Your task to perform on an android device: open app "DuckDuckGo Privacy Browser" Image 0: 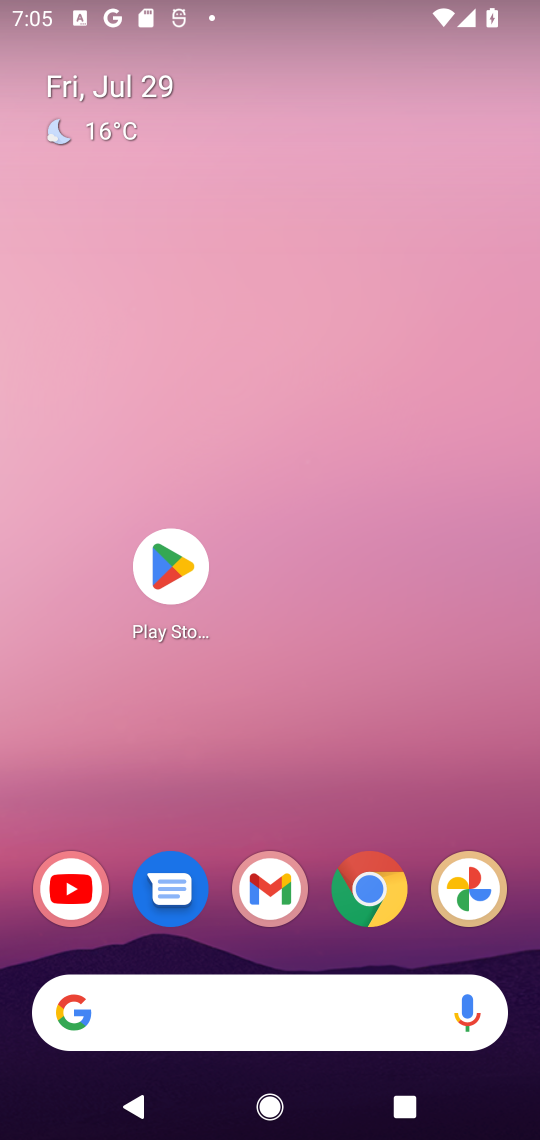
Step 0: press home button
Your task to perform on an android device: open app "DuckDuckGo Privacy Browser" Image 1: 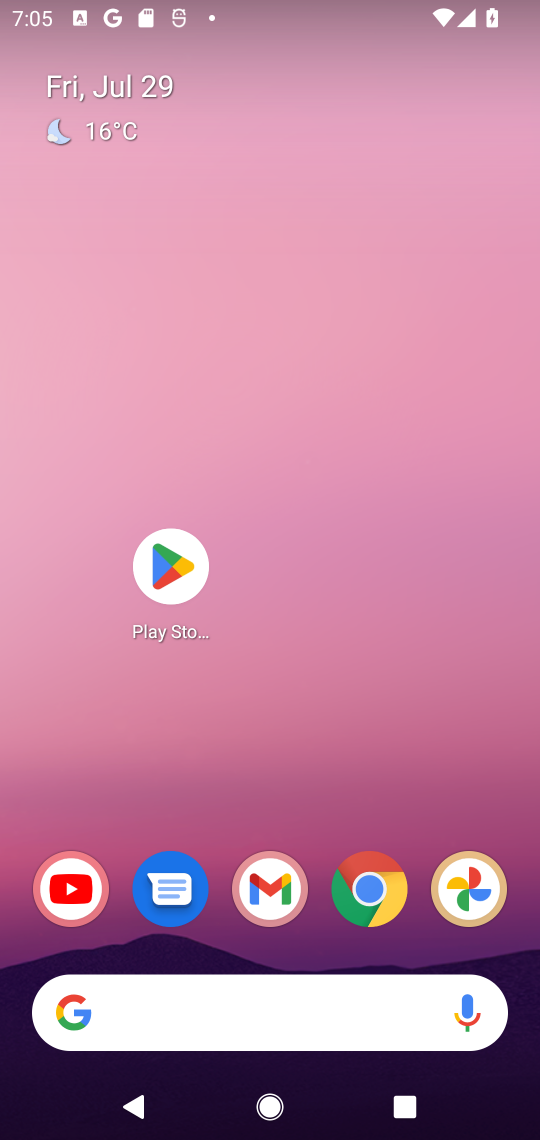
Step 1: click (173, 558)
Your task to perform on an android device: open app "DuckDuckGo Privacy Browser" Image 2: 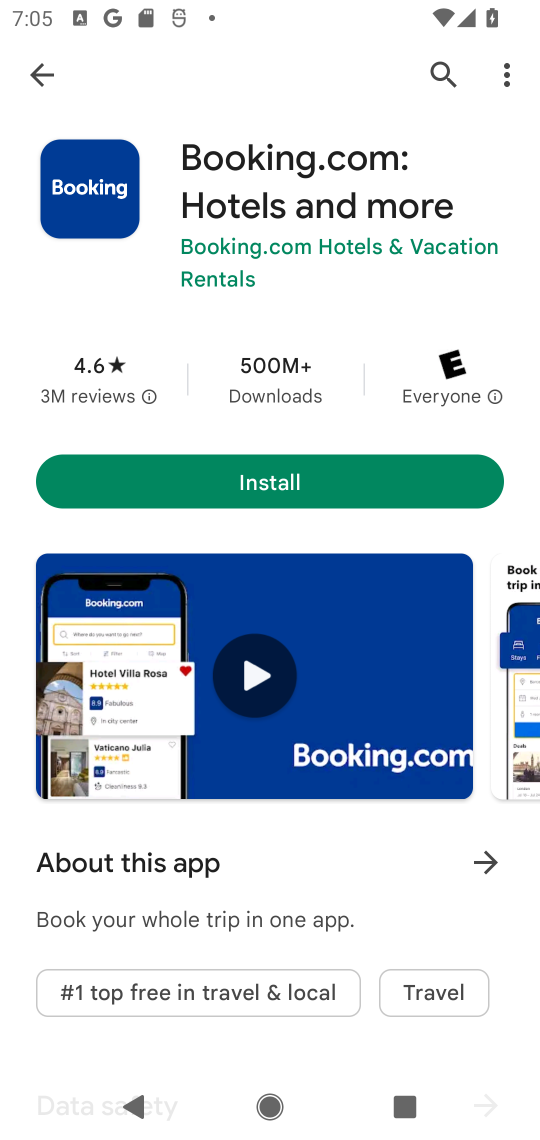
Step 2: click (442, 68)
Your task to perform on an android device: open app "DuckDuckGo Privacy Browser" Image 3: 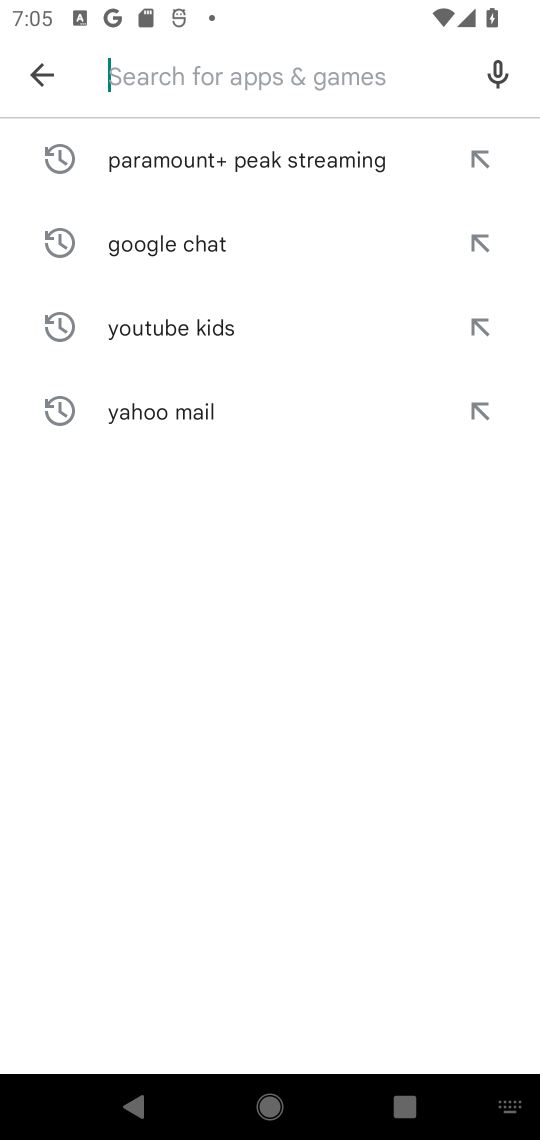
Step 3: type "DuckDuckGo Privacy Browser"
Your task to perform on an android device: open app "DuckDuckGo Privacy Browser" Image 4: 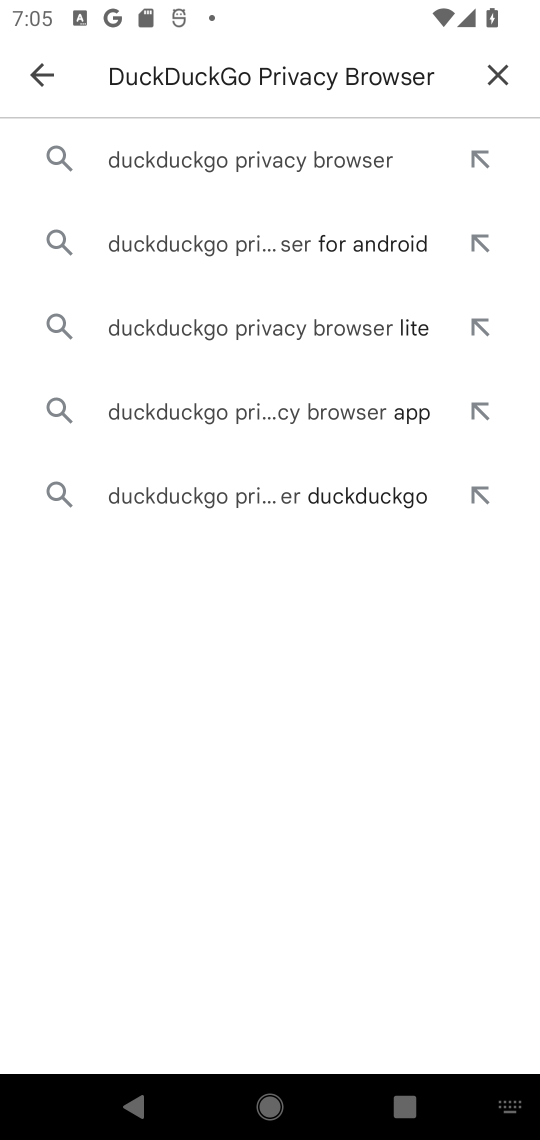
Step 4: click (290, 154)
Your task to perform on an android device: open app "DuckDuckGo Privacy Browser" Image 5: 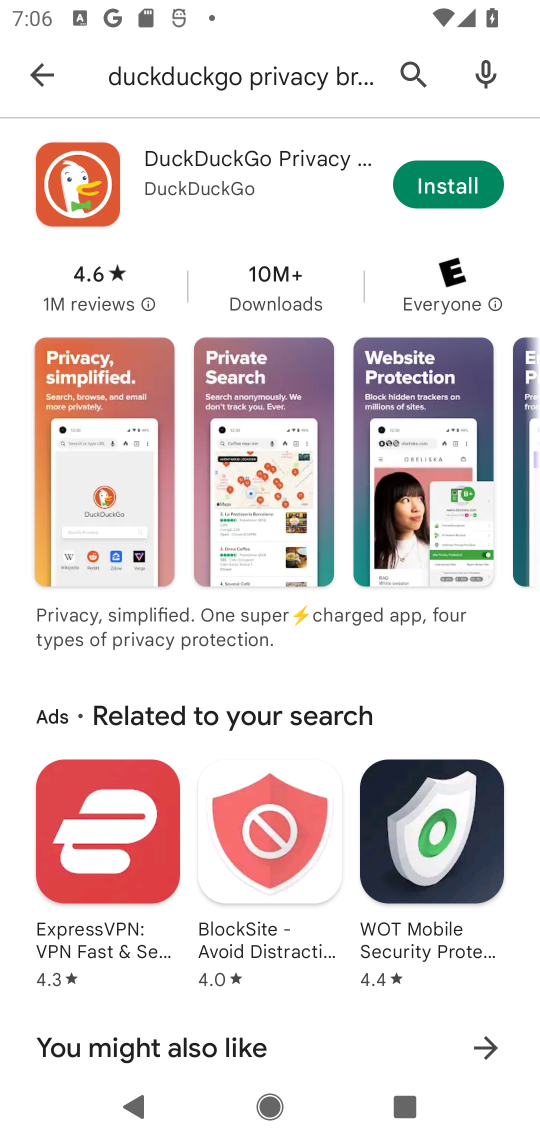
Step 5: task complete